Your task to perform on an android device: toggle notification dots Image 0: 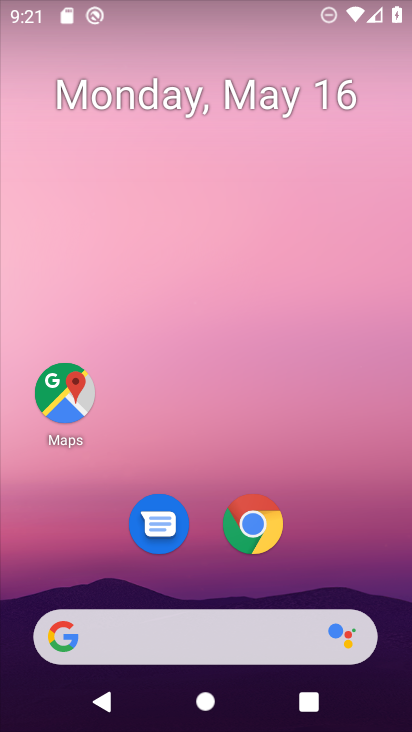
Step 0: drag from (335, 516) to (324, 38)
Your task to perform on an android device: toggle notification dots Image 1: 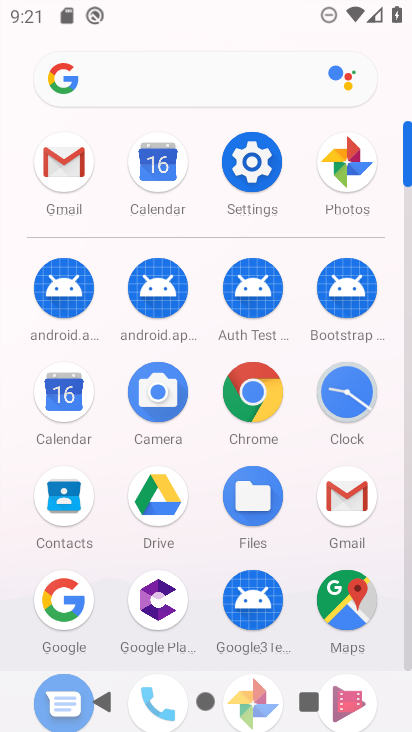
Step 1: click (257, 161)
Your task to perform on an android device: toggle notification dots Image 2: 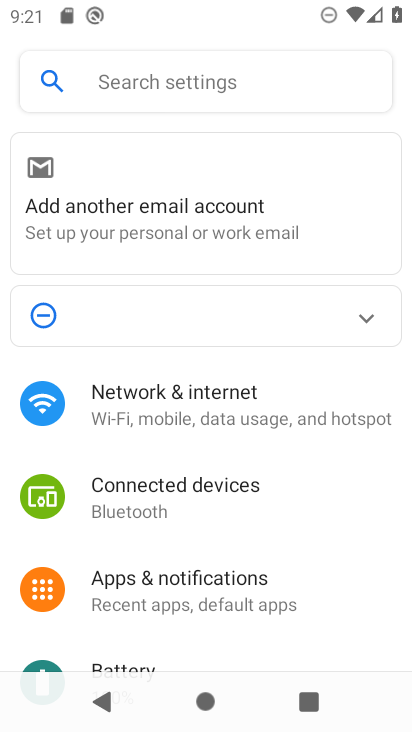
Step 2: click (234, 406)
Your task to perform on an android device: toggle notification dots Image 3: 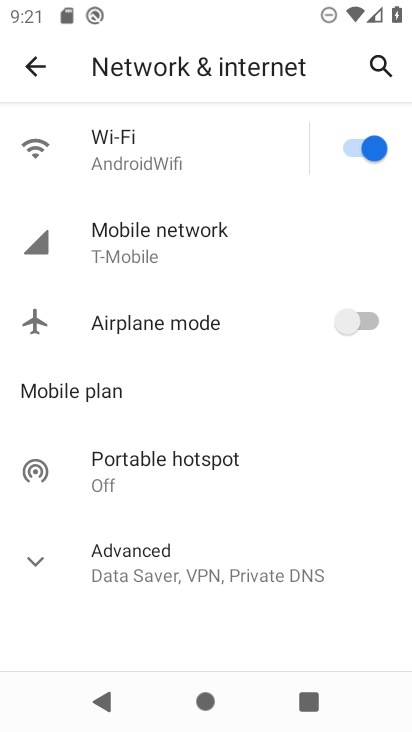
Step 3: click (36, 64)
Your task to perform on an android device: toggle notification dots Image 4: 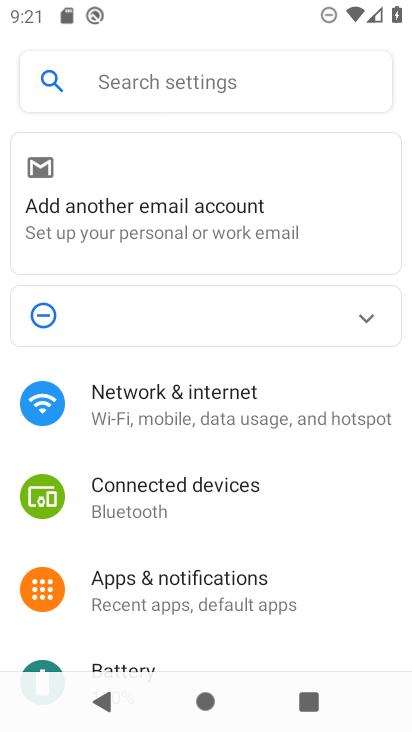
Step 4: click (170, 572)
Your task to perform on an android device: toggle notification dots Image 5: 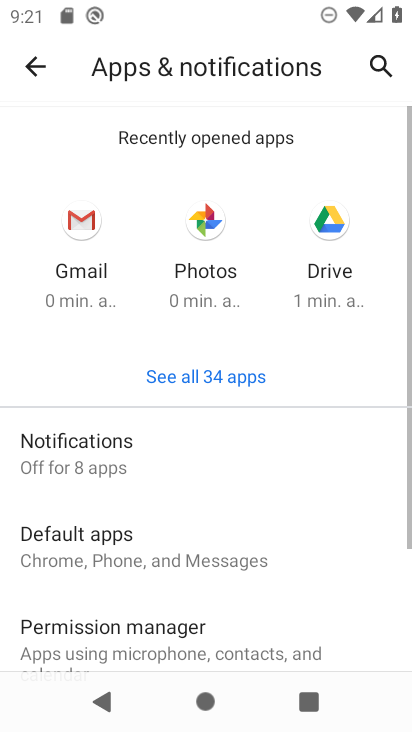
Step 5: drag from (267, 446) to (282, 123)
Your task to perform on an android device: toggle notification dots Image 6: 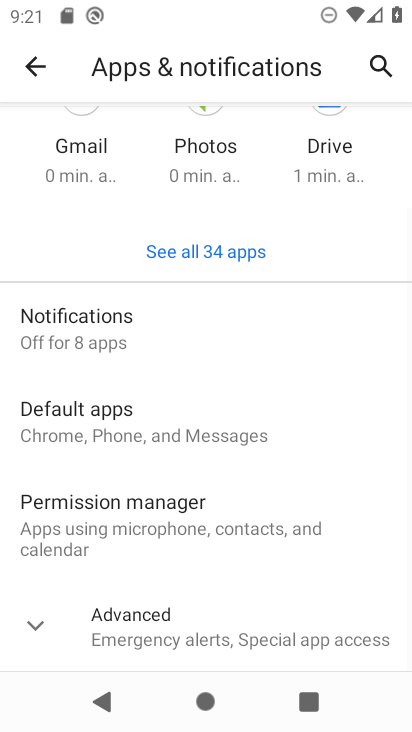
Step 6: click (131, 311)
Your task to perform on an android device: toggle notification dots Image 7: 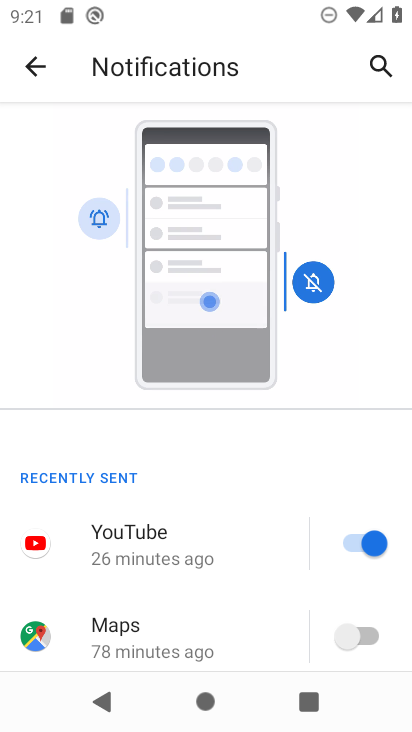
Step 7: drag from (188, 578) to (293, 313)
Your task to perform on an android device: toggle notification dots Image 8: 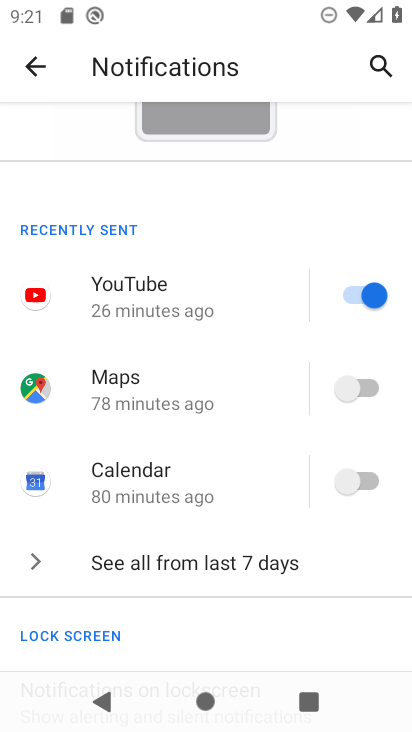
Step 8: drag from (191, 610) to (249, 209)
Your task to perform on an android device: toggle notification dots Image 9: 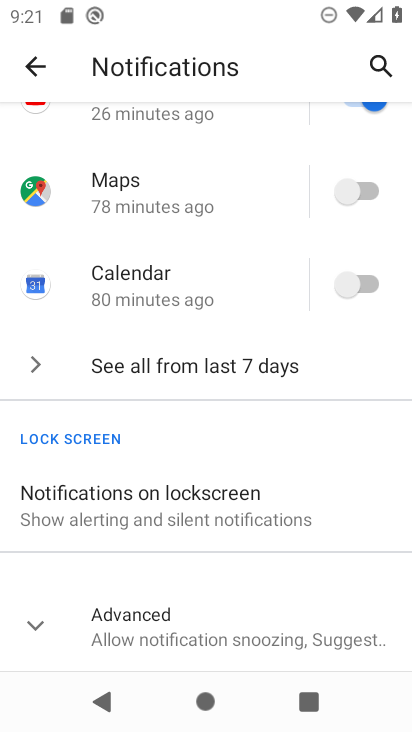
Step 9: click (33, 617)
Your task to perform on an android device: toggle notification dots Image 10: 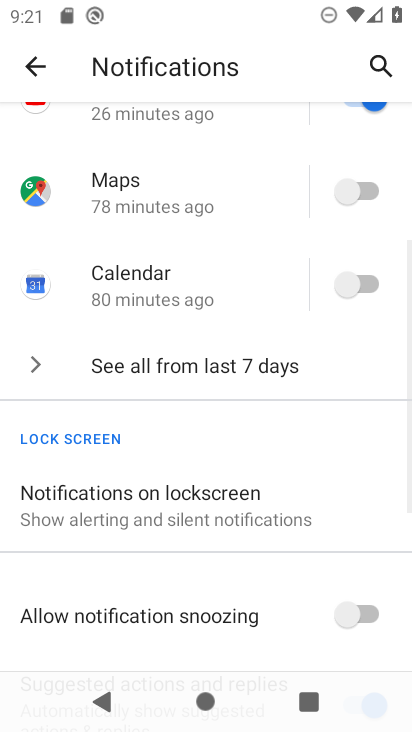
Step 10: drag from (202, 551) to (237, 248)
Your task to perform on an android device: toggle notification dots Image 11: 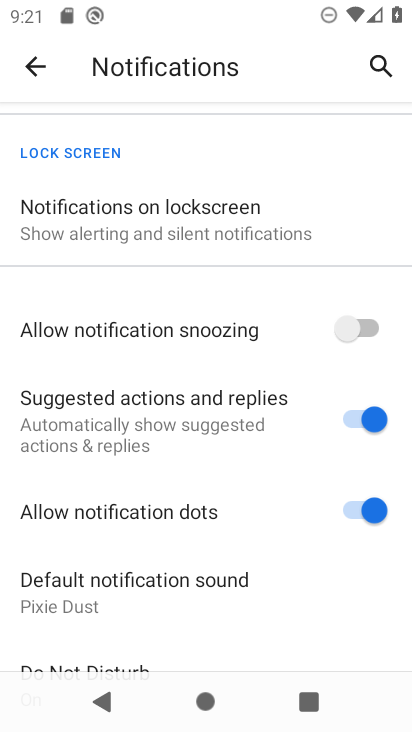
Step 11: click (351, 504)
Your task to perform on an android device: toggle notification dots Image 12: 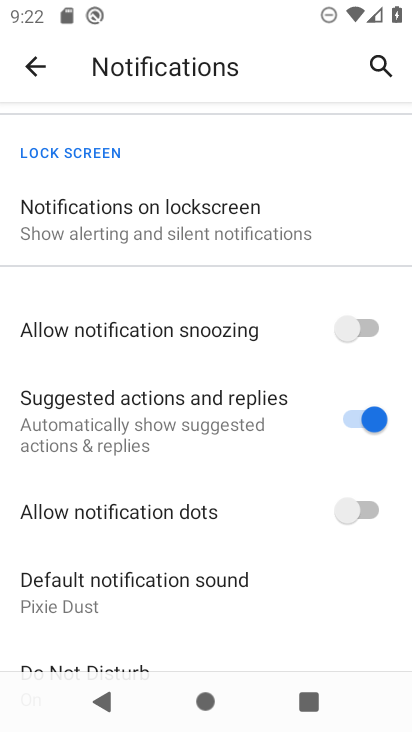
Step 12: task complete